Your task to perform on an android device: show emergency info Image 0: 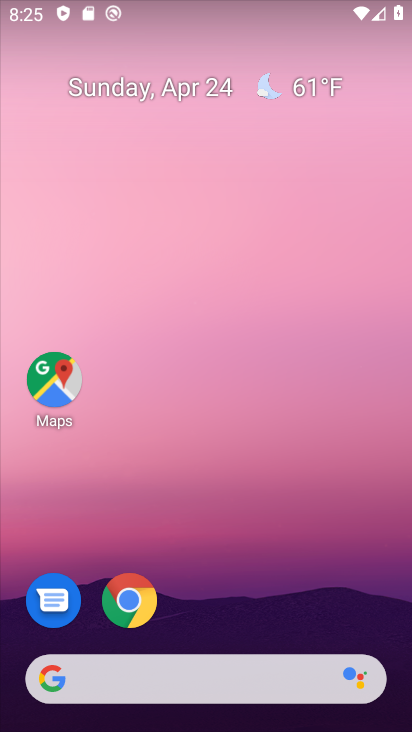
Step 0: click (404, 578)
Your task to perform on an android device: show emergency info Image 1: 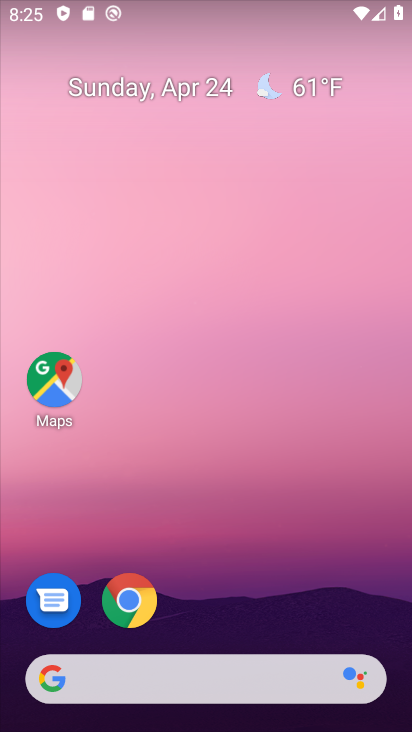
Step 1: drag from (234, 692) to (213, 119)
Your task to perform on an android device: show emergency info Image 2: 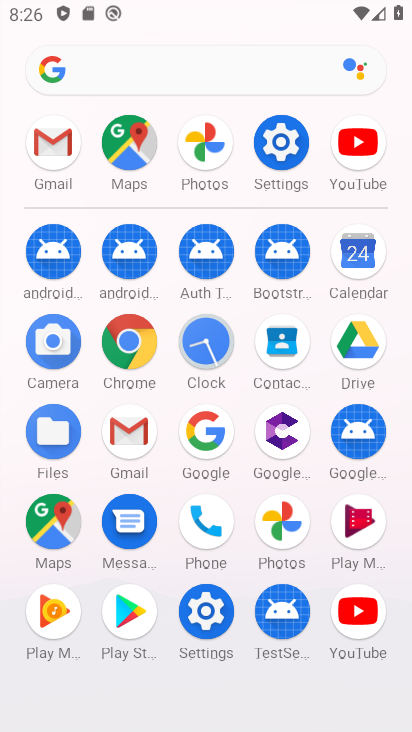
Step 2: click (277, 153)
Your task to perform on an android device: show emergency info Image 3: 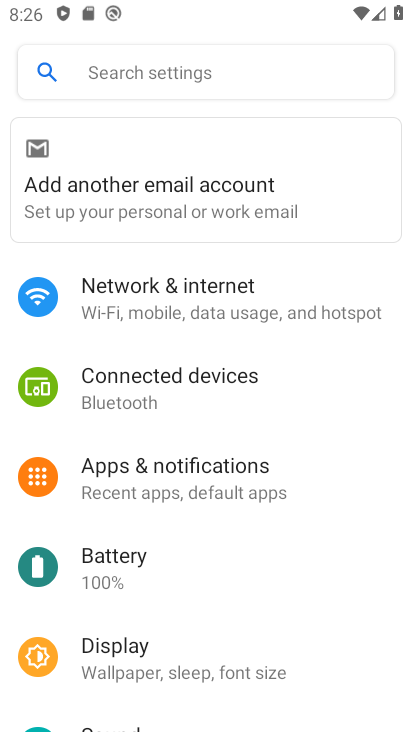
Step 3: drag from (217, 698) to (218, 260)
Your task to perform on an android device: show emergency info Image 4: 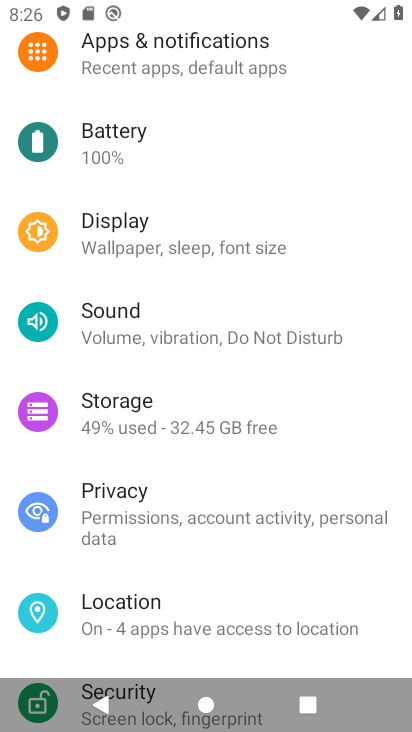
Step 4: drag from (200, 635) to (203, 298)
Your task to perform on an android device: show emergency info Image 5: 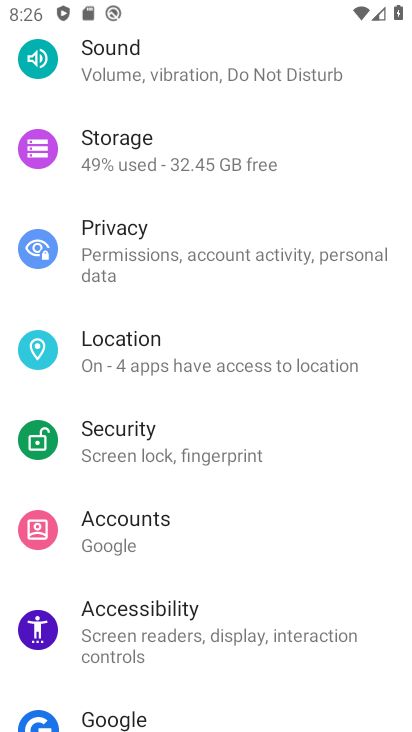
Step 5: drag from (202, 665) to (204, 313)
Your task to perform on an android device: show emergency info Image 6: 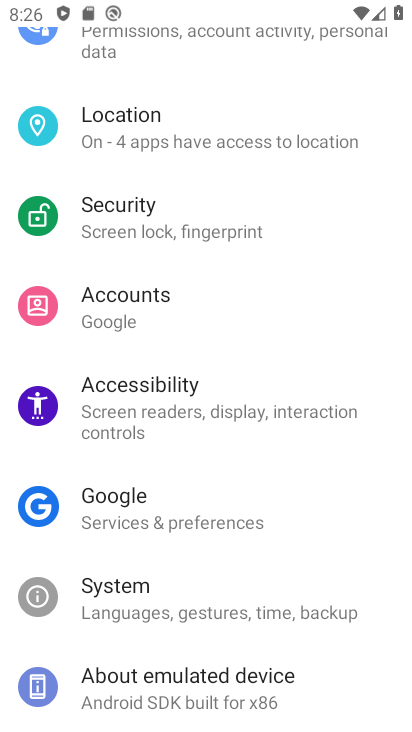
Step 6: drag from (234, 701) to (235, 385)
Your task to perform on an android device: show emergency info Image 7: 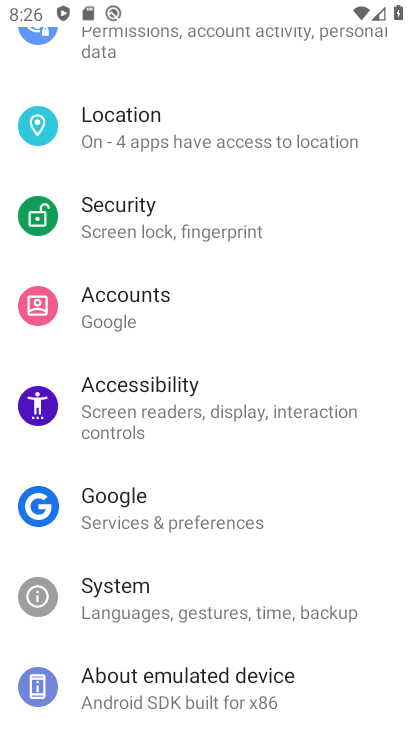
Step 7: drag from (205, 663) to (211, 368)
Your task to perform on an android device: show emergency info Image 8: 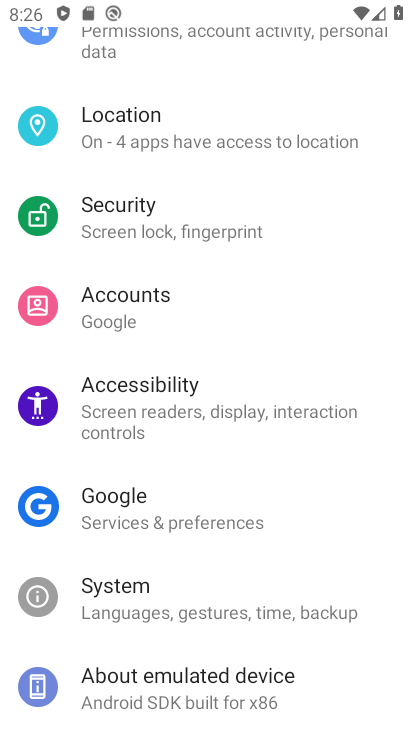
Step 8: click (199, 678)
Your task to perform on an android device: show emergency info Image 9: 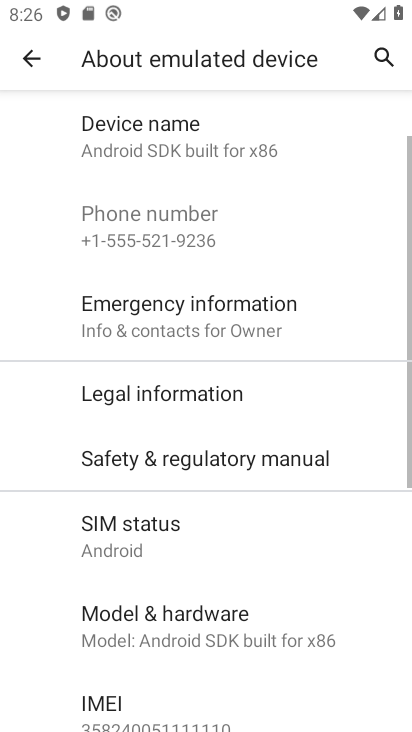
Step 9: click (215, 320)
Your task to perform on an android device: show emergency info Image 10: 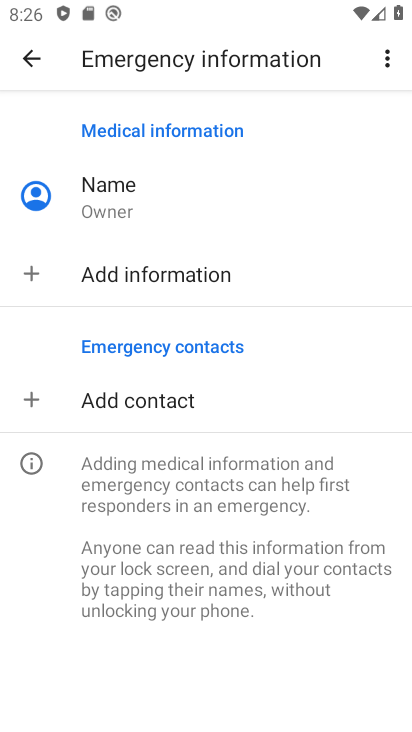
Step 10: task complete